Your task to perform on an android device: What's the weather today? Image 0: 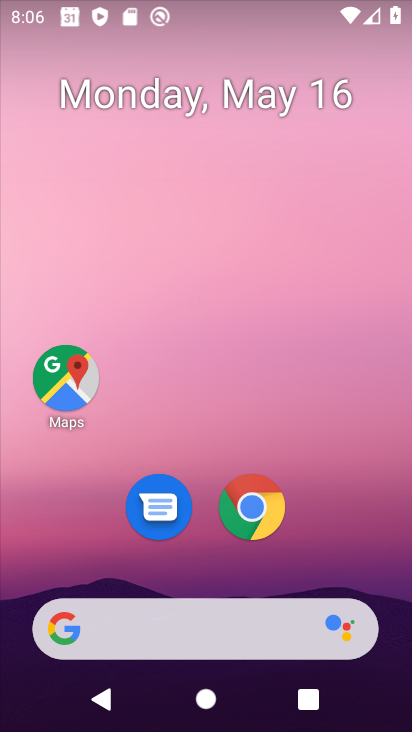
Step 0: click (245, 515)
Your task to perform on an android device: What's the weather today? Image 1: 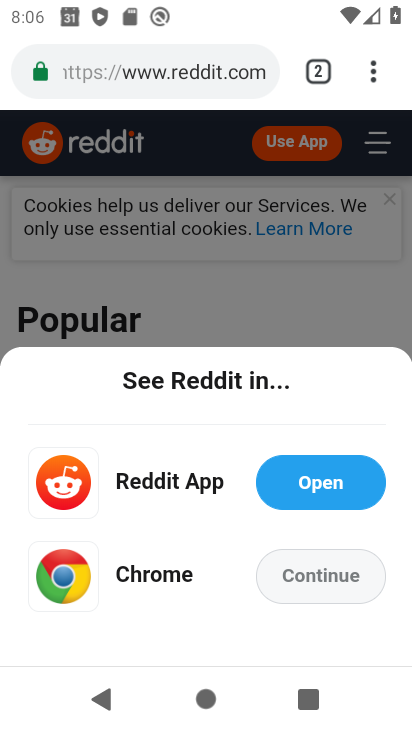
Step 1: click (256, 72)
Your task to perform on an android device: What's the weather today? Image 2: 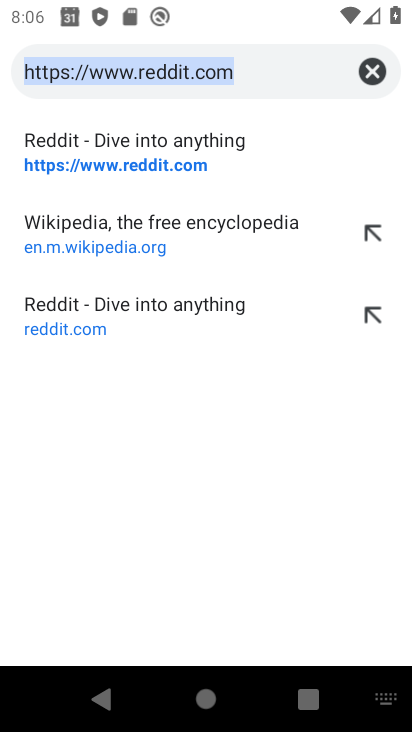
Step 2: click (374, 69)
Your task to perform on an android device: What's the weather today? Image 3: 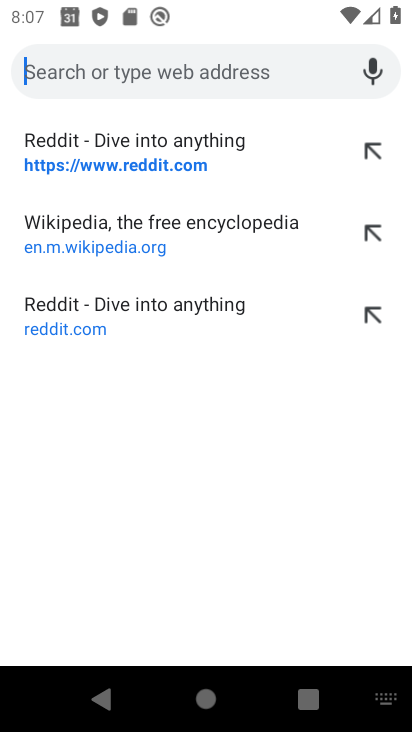
Step 3: type "What's the weather today?"
Your task to perform on an android device: What's the weather today? Image 4: 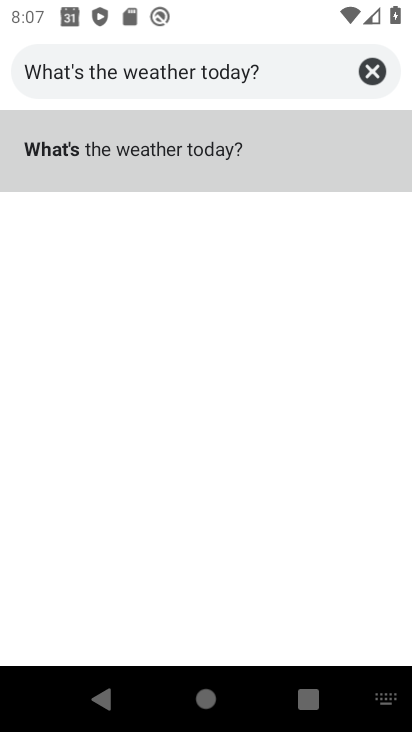
Step 4: click (157, 141)
Your task to perform on an android device: What's the weather today? Image 5: 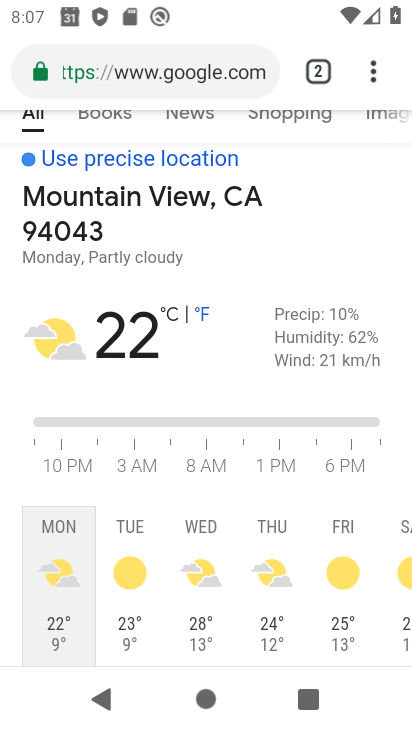
Step 5: task complete